Your task to perform on an android device: turn off improve location accuracy Image 0: 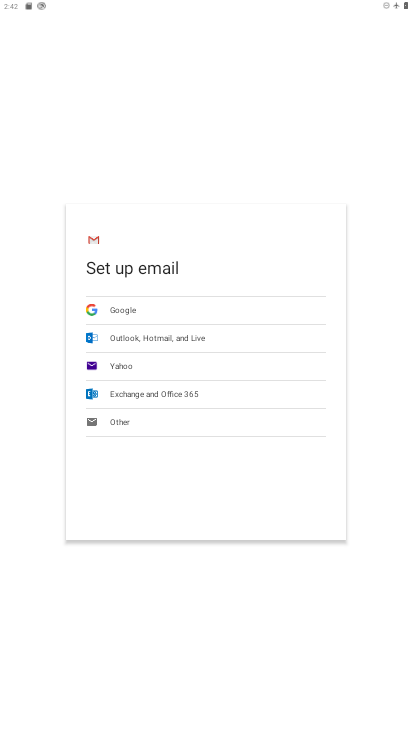
Step 0: press home button
Your task to perform on an android device: turn off improve location accuracy Image 1: 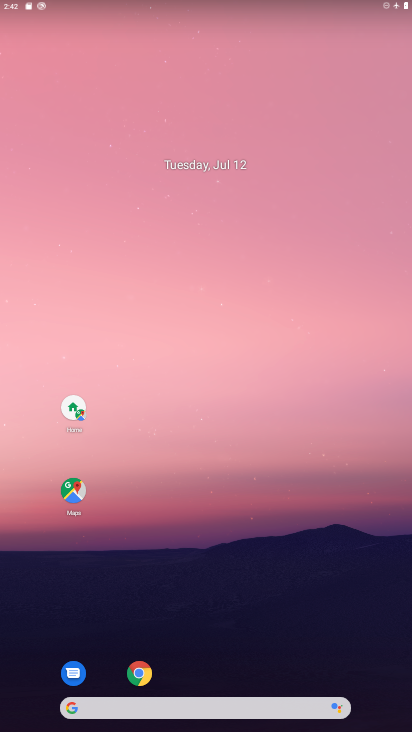
Step 1: drag from (271, 684) to (240, 254)
Your task to perform on an android device: turn off improve location accuracy Image 2: 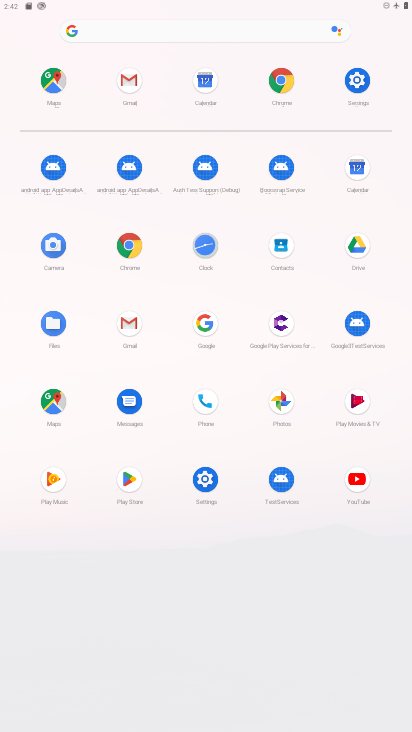
Step 2: click (359, 70)
Your task to perform on an android device: turn off improve location accuracy Image 3: 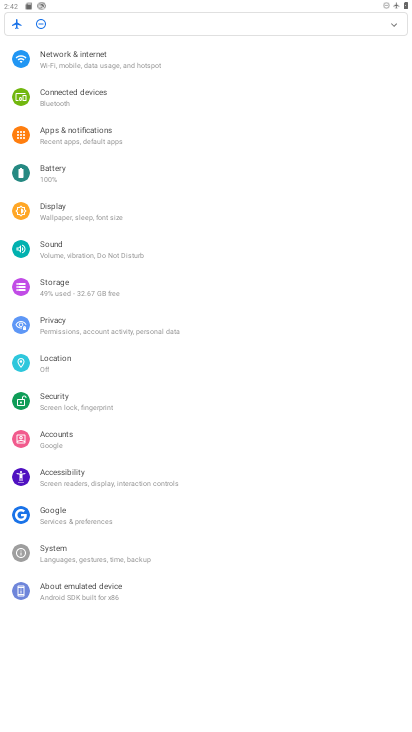
Step 3: click (79, 361)
Your task to perform on an android device: turn off improve location accuracy Image 4: 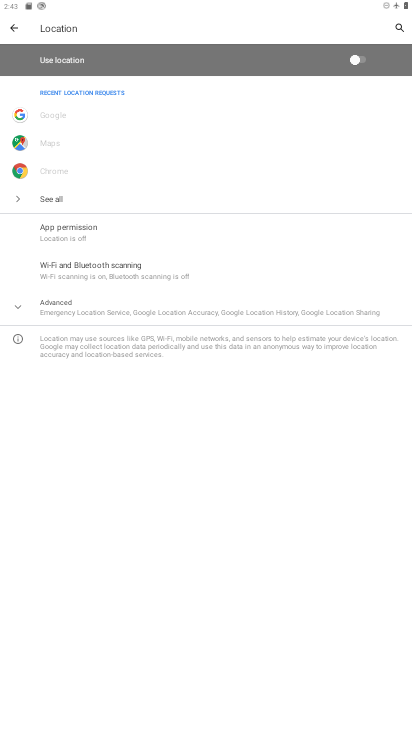
Step 4: click (153, 307)
Your task to perform on an android device: turn off improve location accuracy Image 5: 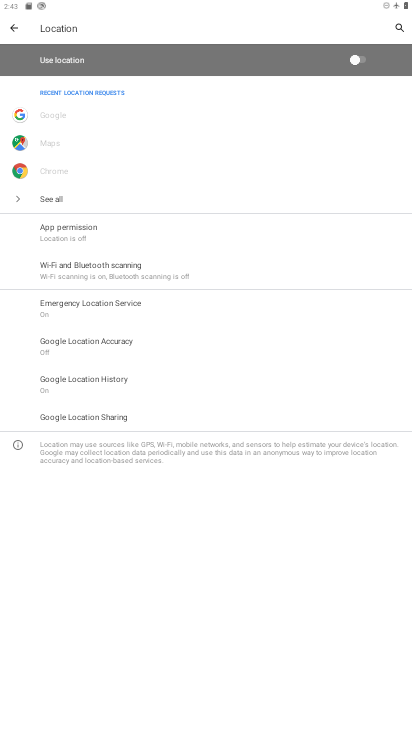
Step 5: click (116, 345)
Your task to perform on an android device: turn off improve location accuracy Image 6: 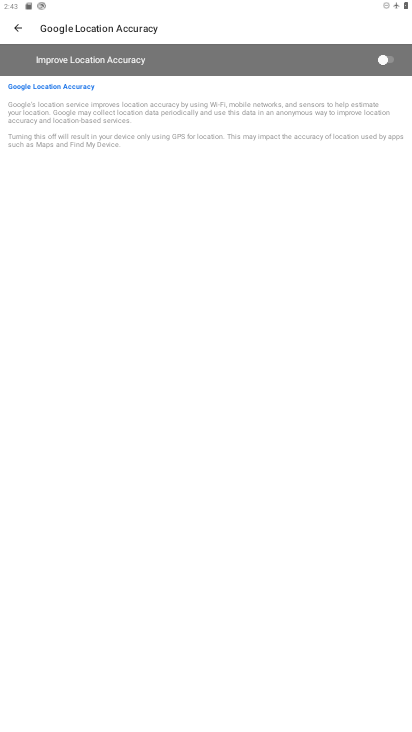
Step 6: task complete